Your task to perform on an android device: Is it going to rain today? Image 0: 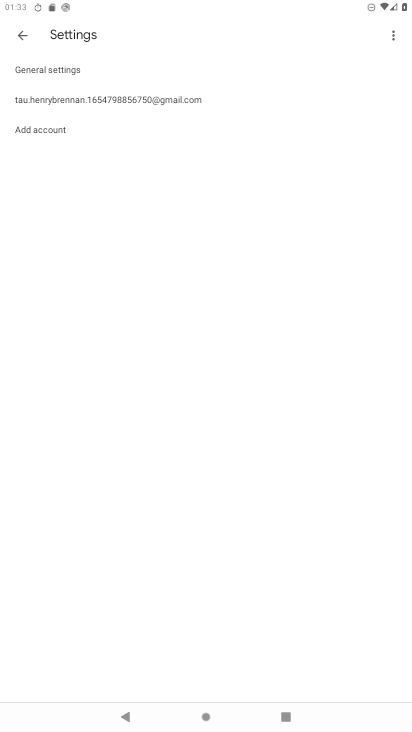
Step 0: press home button
Your task to perform on an android device: Is it going to rain today? Image 1: 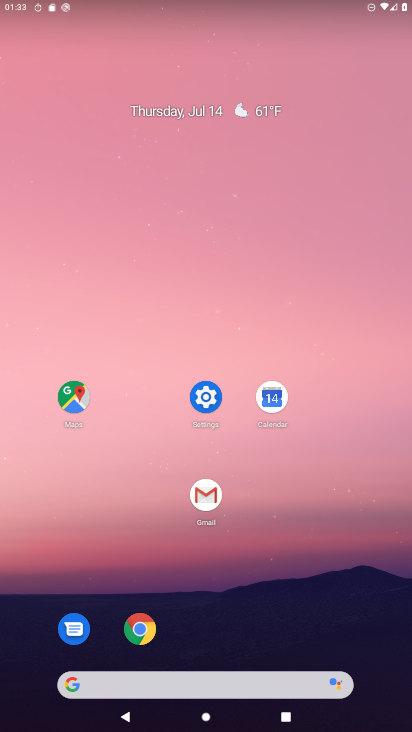
Step 1: task complete